Your task to perform on an android device: Open CNN.com Image 0: 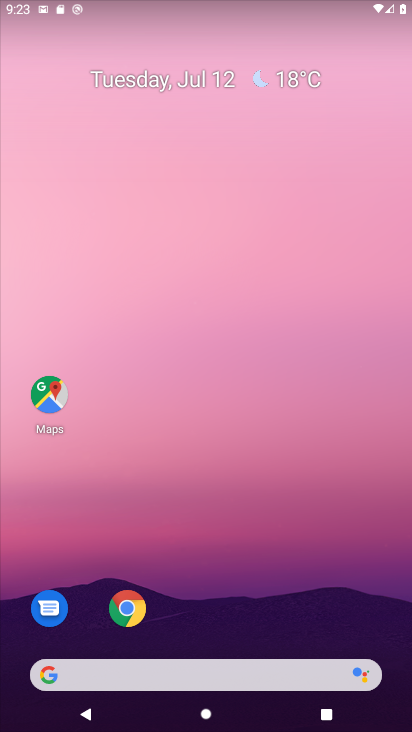
Step 0: click (128, 617)
Your task to perform on an android device: Open CNN.com Image 1: 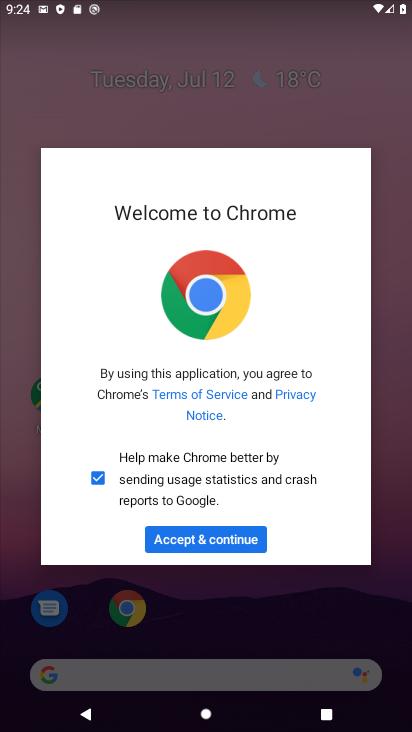
Step 1: click (204, 539)
Your task to perform on an android device: Open CNN.com Image 2: 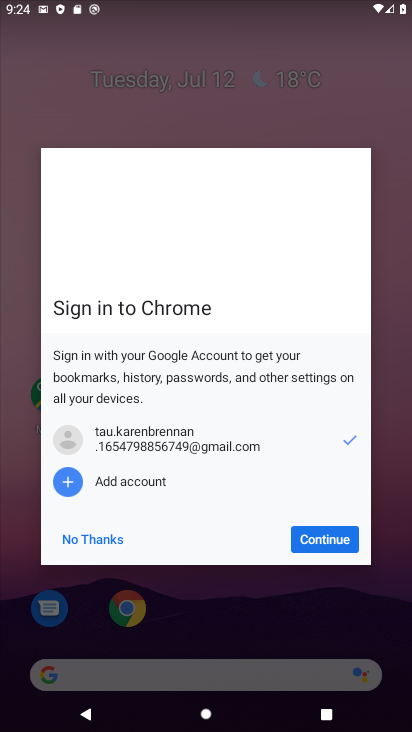
Step 2: click (327, 543)
Your task to perform on an android device: Open CNN.com Image 3: 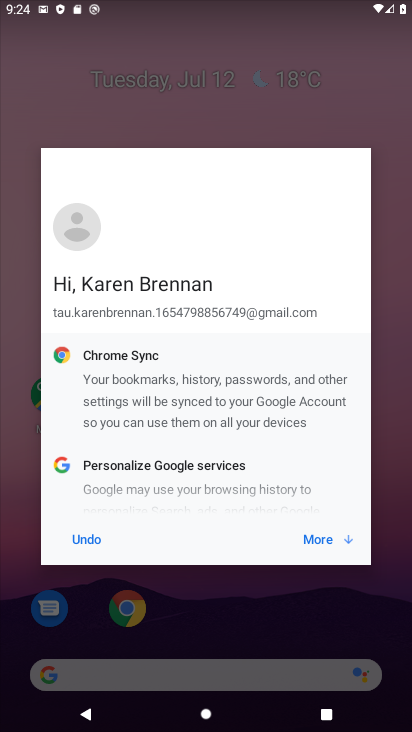
Step 3: click (332, 542)
Your task to perform on an android device: Open CNN.com Image 4: 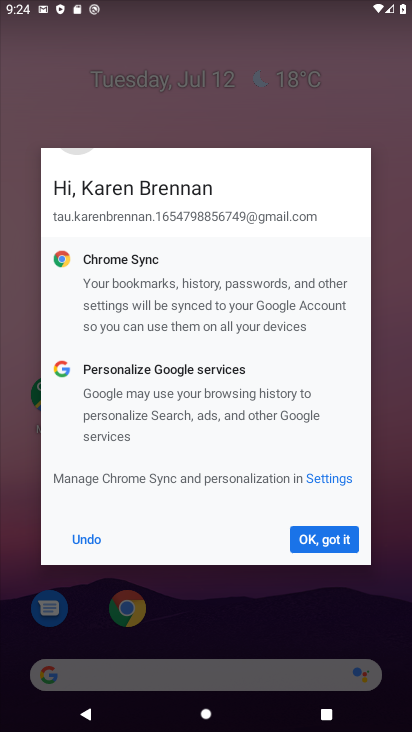
Step 4: click (319, 542)
Your task to perform on an android device: Open CNN.com Image 5: 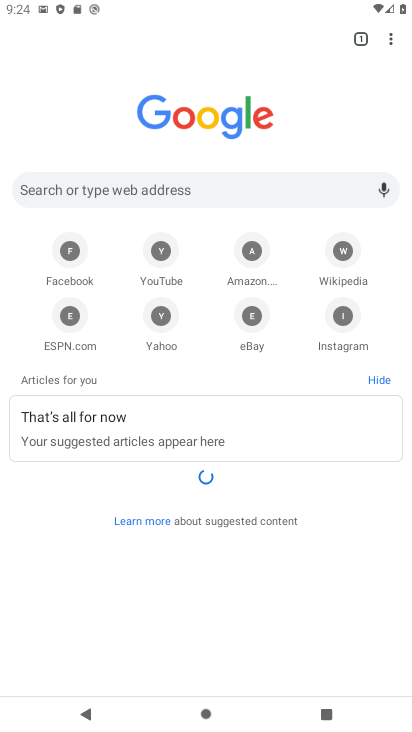
Step 5: click (137, 184)
Your task to perform on an android device: Open CNN.com Image 6: 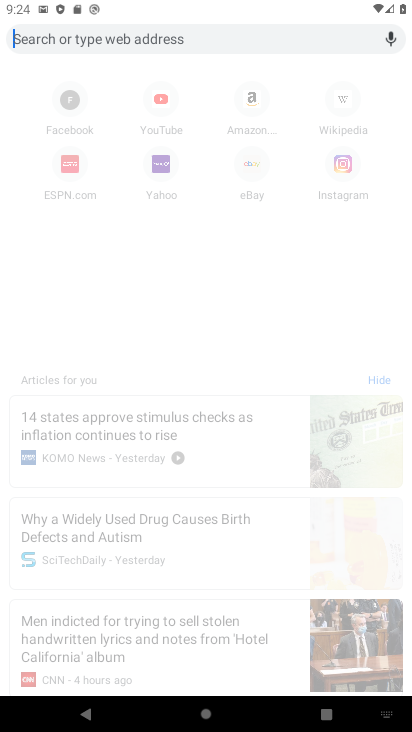
Step 6: click (93, 35)
Your task to perform on an android device: Open CNN.com Image 7: 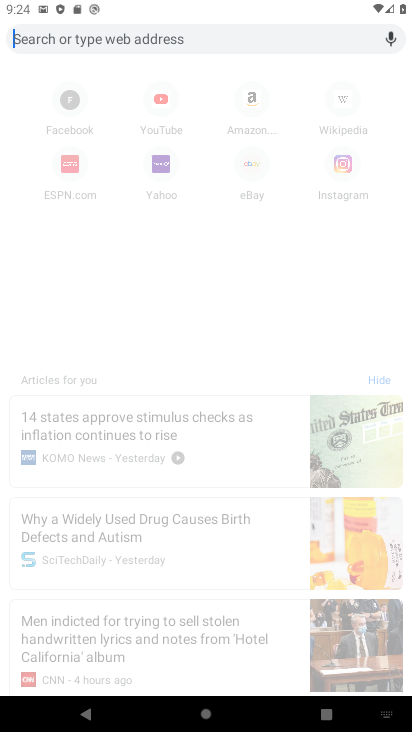
Step 7: type "cnn.com"
Your task to perform on an android device: Open CNN.com Image 8: 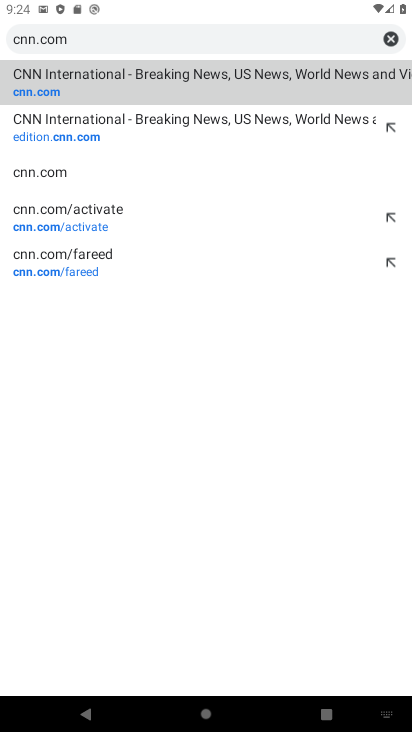
Step 8: click (211, 90)
Your task to perform on an android device: Open CNN.com Image 9: 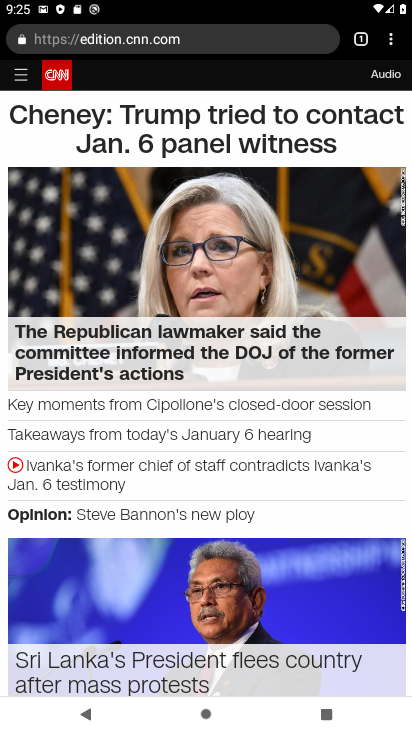
Step 9: task complete